Your task to perform on an android device: check storage Image 0: 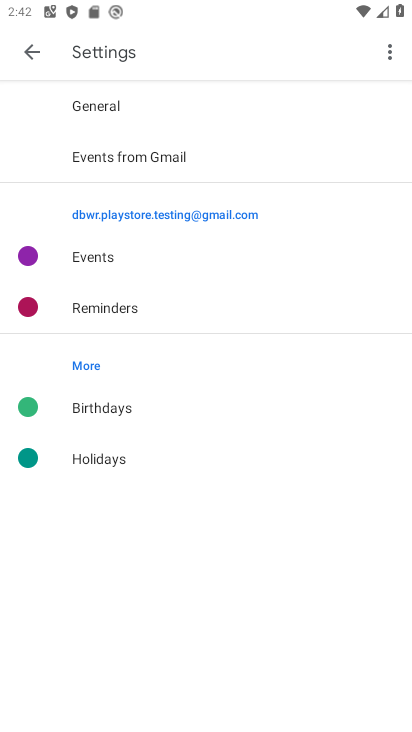
Step 0: press home button
Your task to perform on an android device: check storage Image 1: 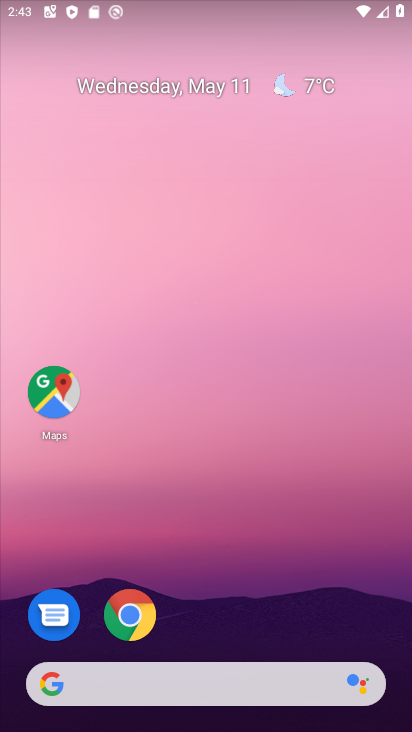
Step 1: drag from (240, 550) to (272, 53)
Your task to perform on an android device: check storage Image 2: 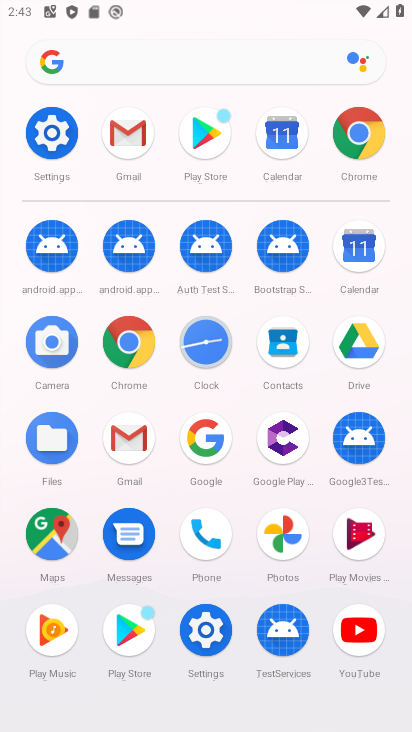
Step 2: click (60, 128)
Your task to perform on an android device: check storage Image 3: 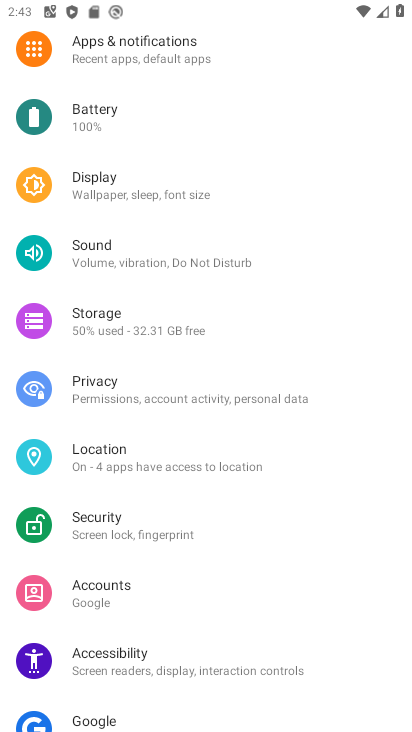
Step 3: click (134, 326)
Your task to perform on an android device: check storage Image 4: 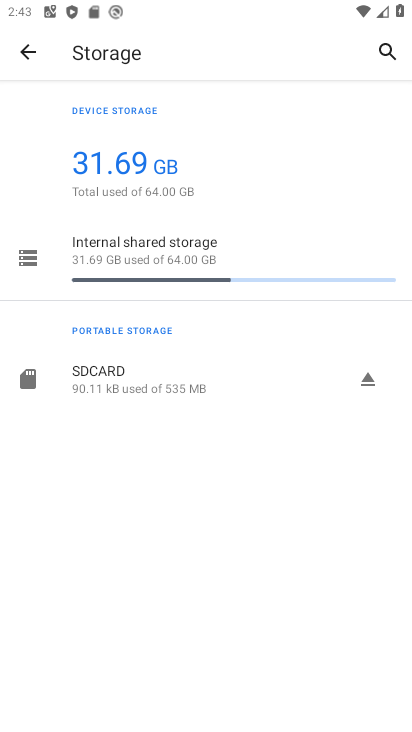
Step 4: task complete